Your task to perform on an android device: What's the weather? Image 0: 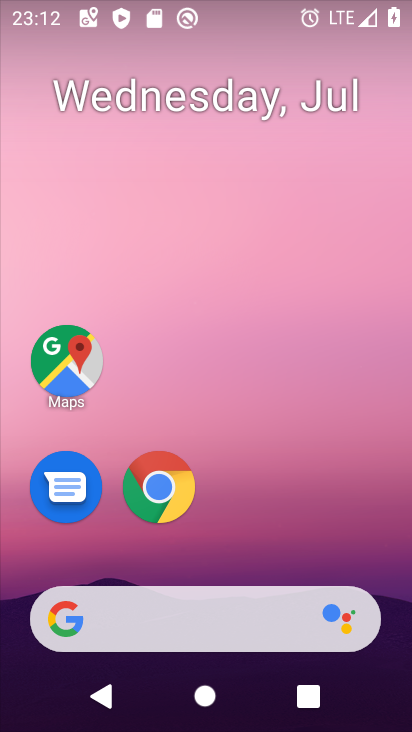
Step 0: click (236, 621)
Your task to perform on an android device: What's the weather? Image 1: 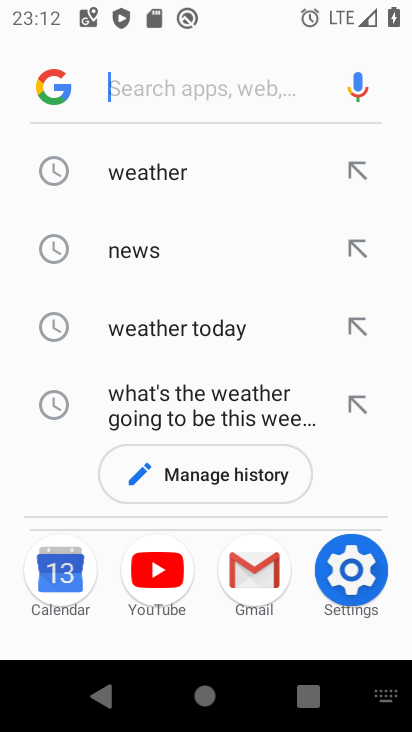
Step 1: click (138, 179)
Your task to perform on an android device: What's the weather? Image 2: 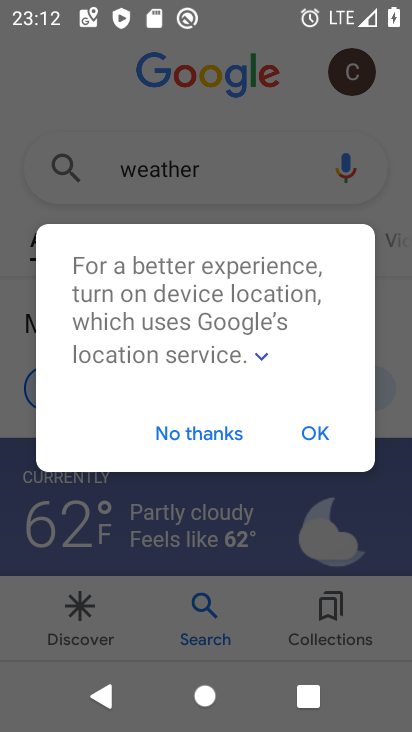
Step 2: click (204, 445)
Your task to perform on an android device: What's the weather? Image 3: 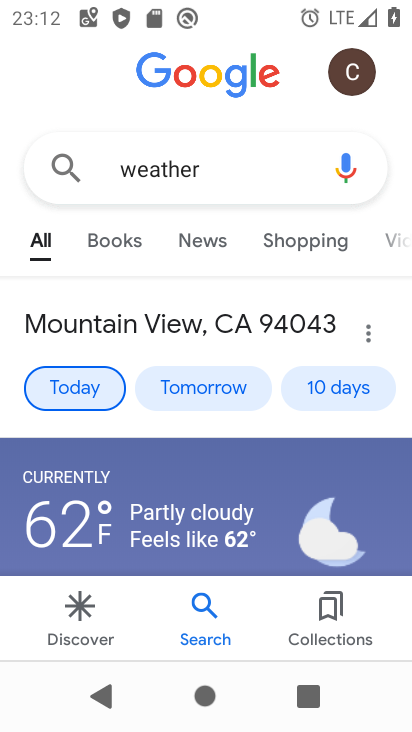
Step 3: task complete